Your task to perform on an android device: Open Android settings Image 0: 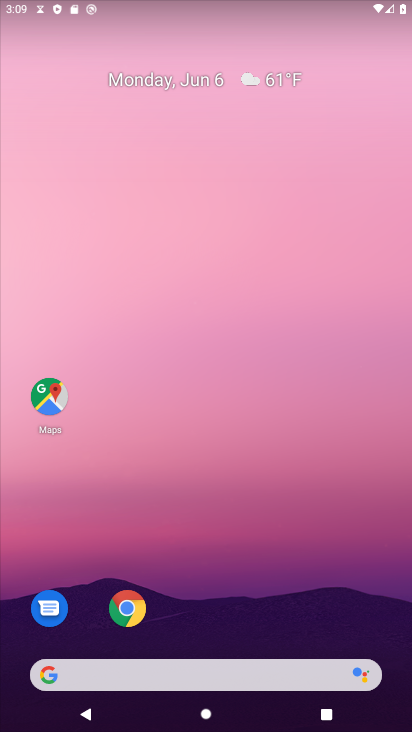
Step 0: drag from (202, 556) to (242, 53)
Your task to perform on an android device: Open Android settings Image 1: 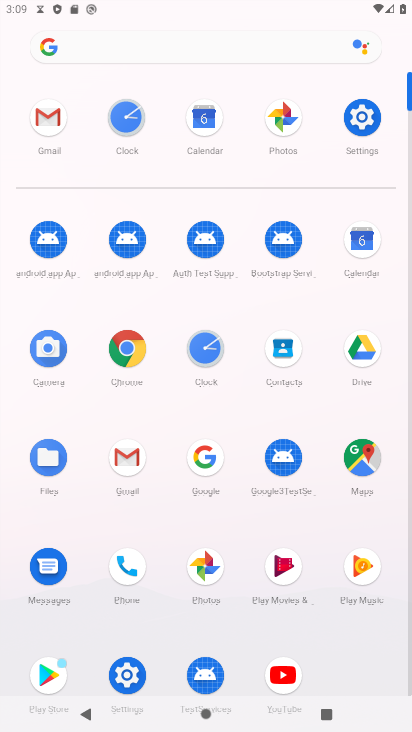
Step 1: click (375, 110)
Your task to perform on an android device: Open Android settings Image 2: 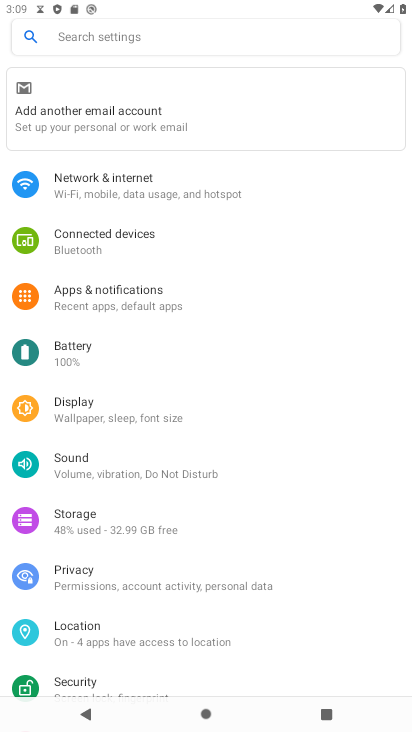
Step 2: drag from (237, 565) to (272, 17)
Your task to perform on an android device: Open Android settings Image 3: 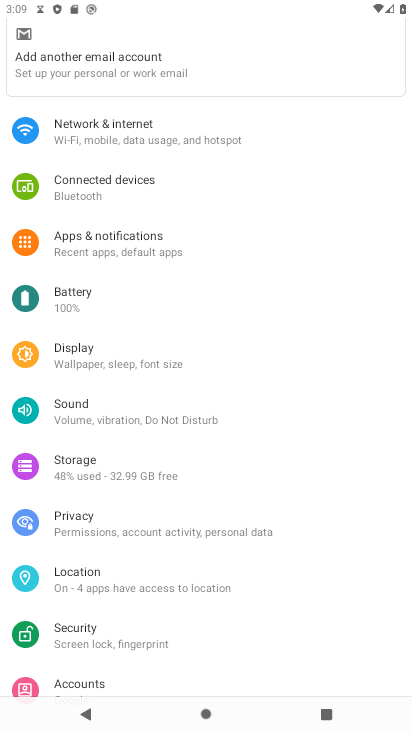
Step 3: drag from (154, 611) to (224, 226)
Your task to perform on an android device: Open Android settings Image 4: 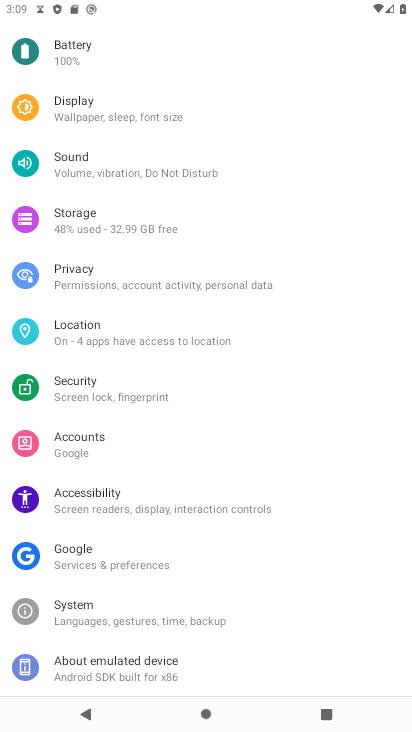
Step 4: click (151, 623)
Your task to perform on an android device: Open Android settings Image 5: 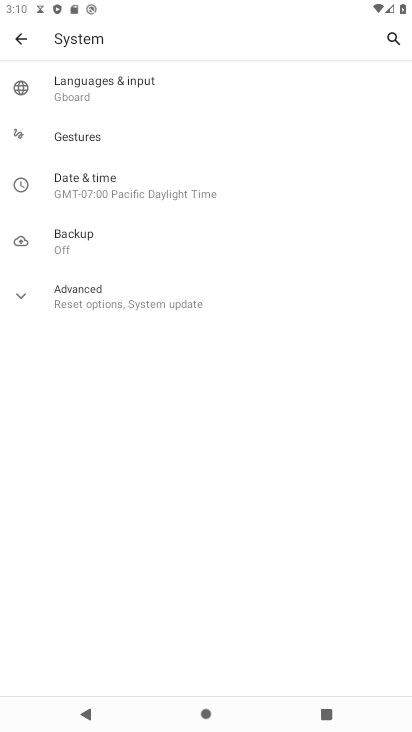
Step 5: task complete